Your task to perform on an android device: Do I have any events tomorrow? Image 0: 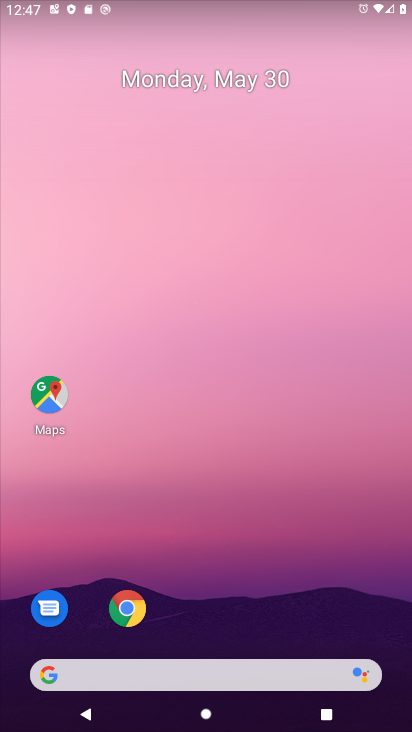
Step 0: drag from (181, 612) to (159, 135)
Your task to perform on an android device: Do I have any events tomorrow? Image 1: 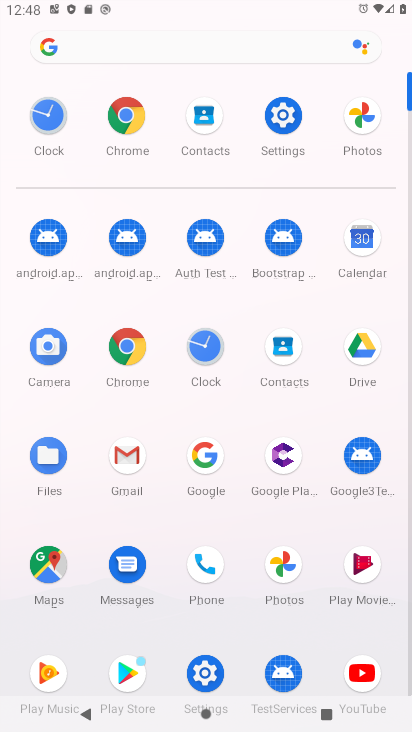
Step 1: click (369, 240)
Your task to perform on an android device: Do I have any events tomorrow? Image 2: 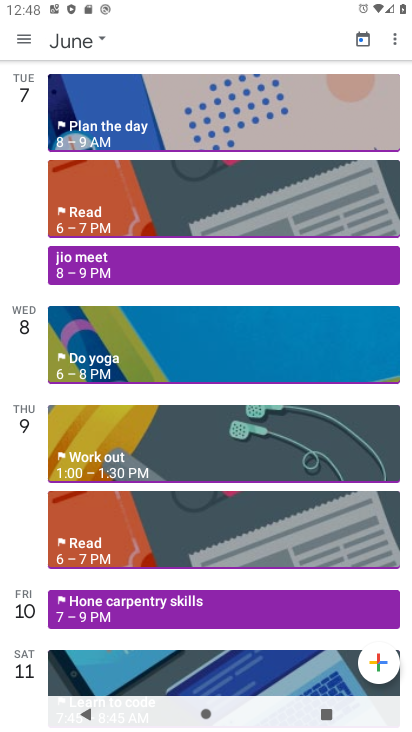
Step 2: task complete